Your task to perform on an android device: Go to battery settings Image 0: 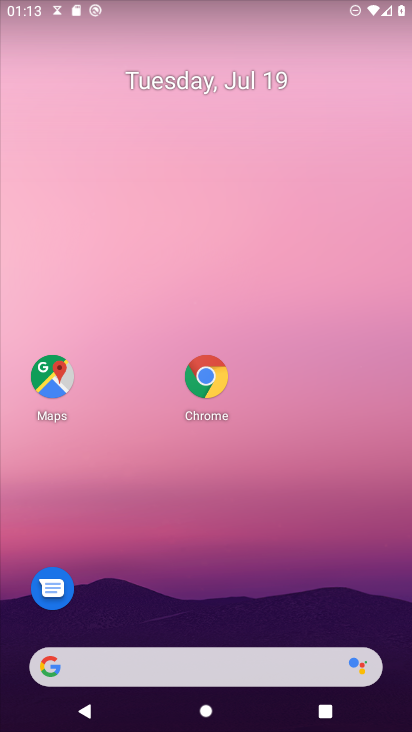
Step 0: press home button
Your task to perform on an android device: Go to battery settings Image 1: 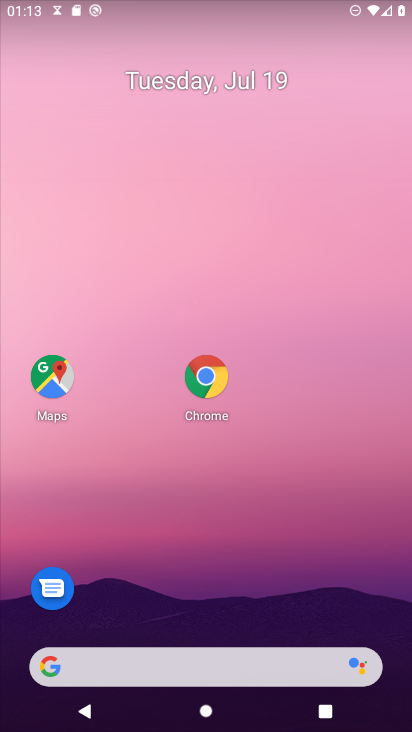
Step 1: drag from (311, 543) to (326, 36)
Your task to perform on an android device: Go to battery settings Image 2: 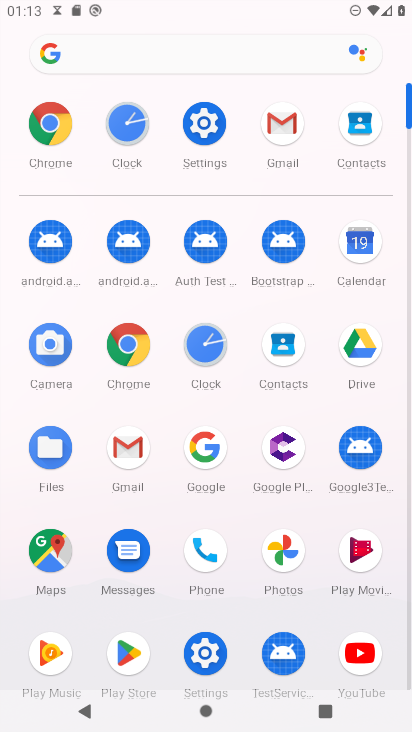
Step 2: click (203, 116)
Your task to perform on an android device: Go to battery settings Image 3: 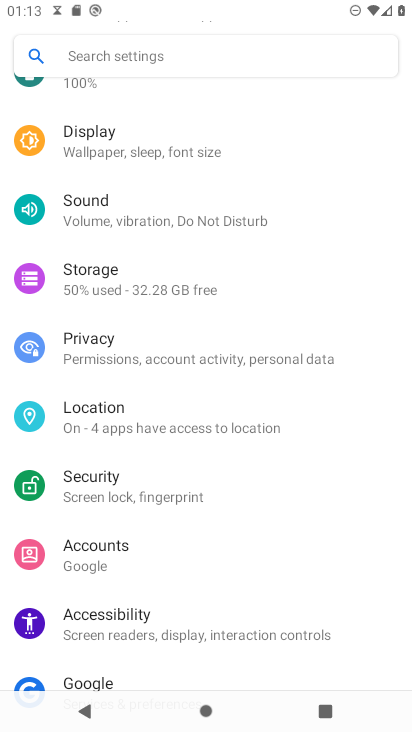
Step 3: drag from (141, 97) to (144, 391)
Your task to perform on an android device: Go to battery settings Image 4: 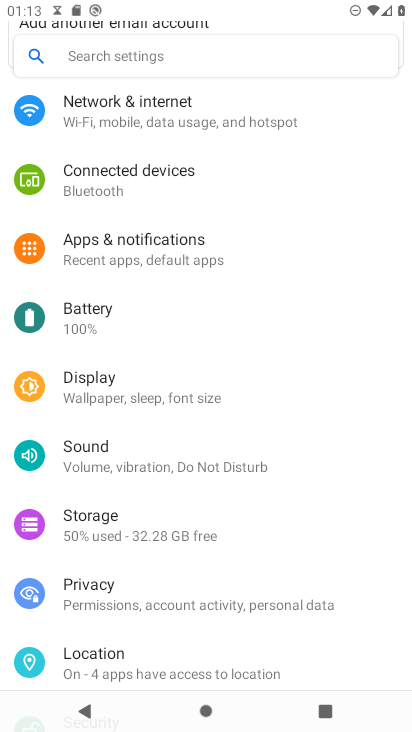
Step 4: click (102, 308)
Your task to perform on an android device: Go to battery settings Image 5: 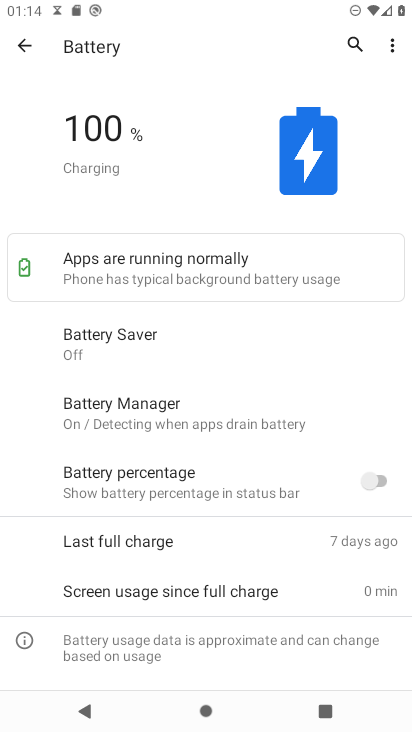
Step 5: task complete